Your task to perform on an android device: Open Yahoo.com Image 0: 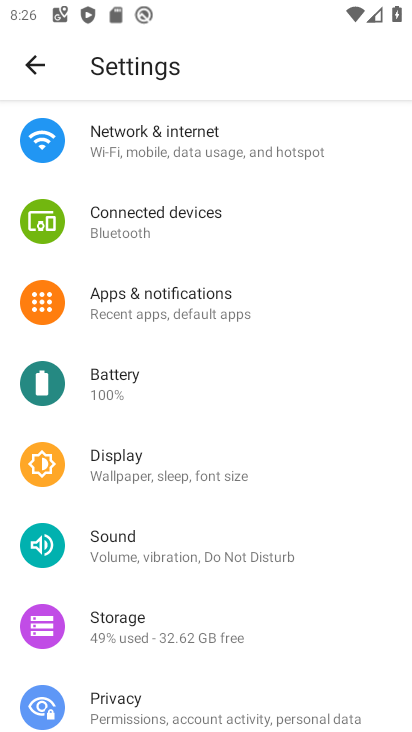
Step 0: press back button
Your task to perform on an android device: Open Yahoo.com Image 1: 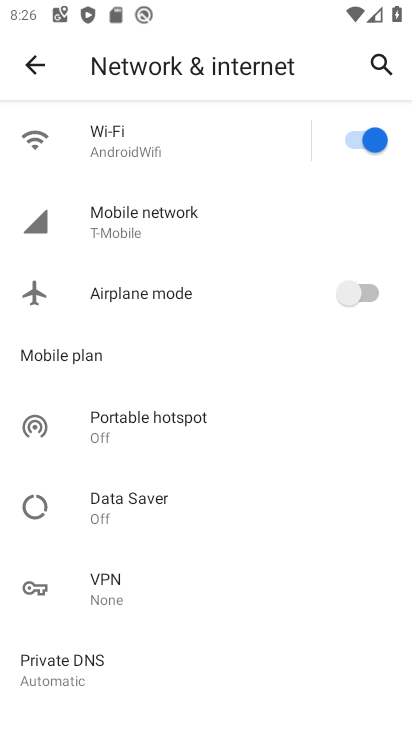
Step 1: press back button
Your task to perform on an android device: Open Yahoo.com Image 2: 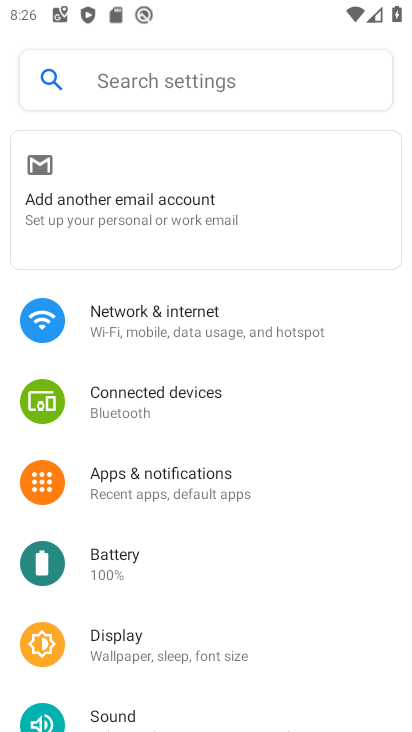
Step 2: press home button
Your task to perform on an android device: Open Yahoo.com Image 3: 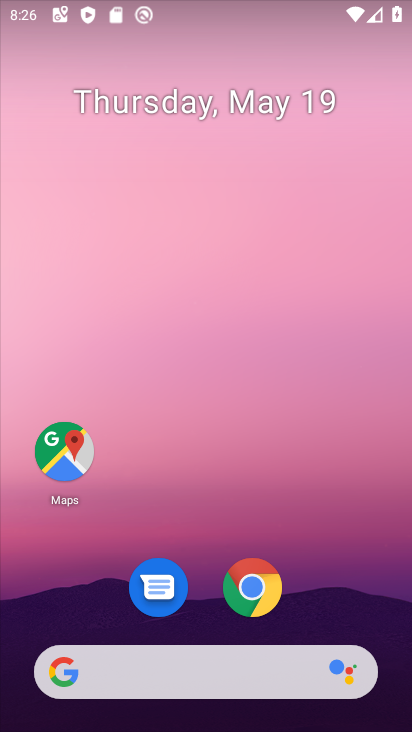
Step 3: drag from (332, 597) to (257, 35)
Your task to perform on an android device: Open Yahoo.com Image 4: 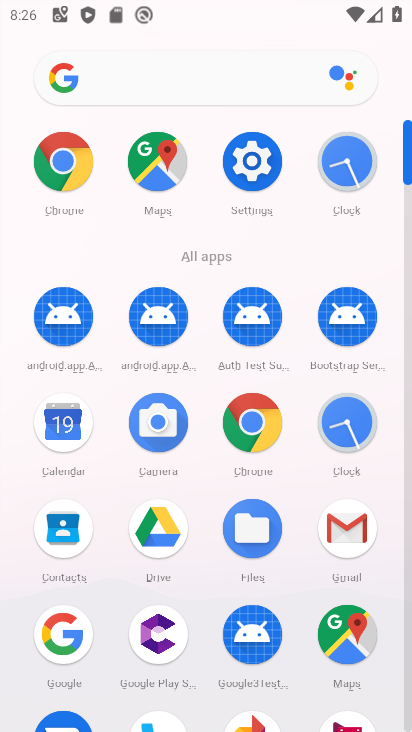
Step 4: click (57, 161)
Your task to perform on an android device: Open Yahoo.com Image 5: 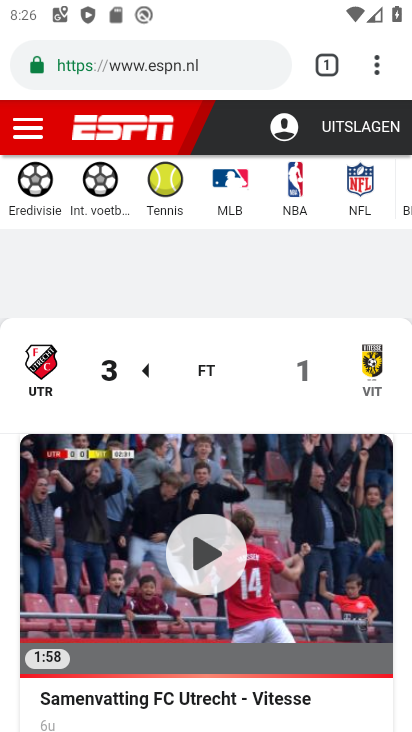
Step 5: click (186, 55)
Your task to perform on an android device: Open Yahoo.com Image 6: 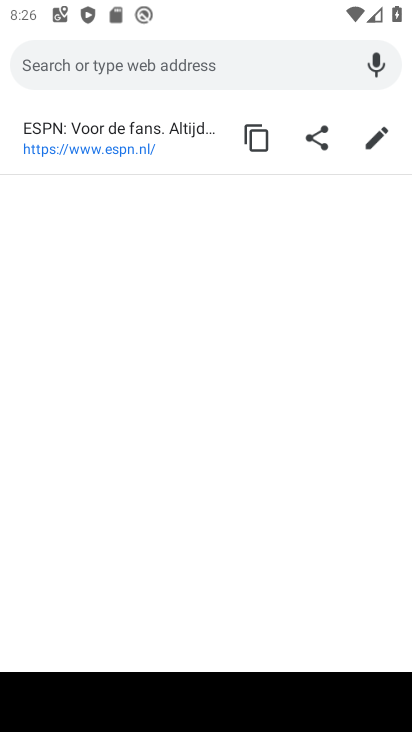
Step 6: type "Yahoo.com"
Your task to perform on an android device: Open Yahoo.com Image 7: 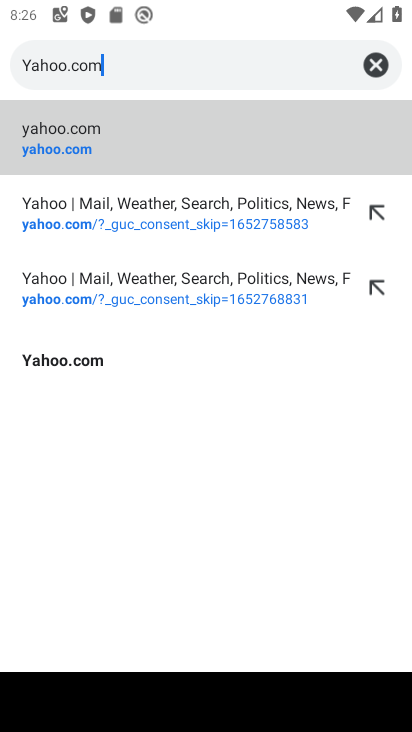
Step 7: type ""
Your task to perform on an android device: Open Yahoo.com Image 8: 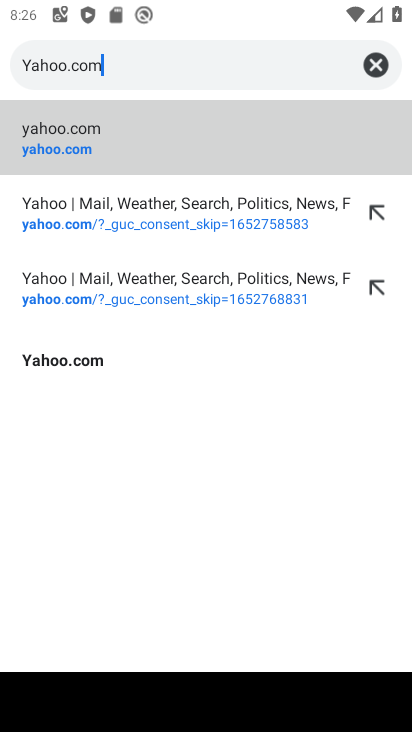
Step 8: click (157, 159)
Your task to perform on an android device: Open Yahoo.com Image 9: 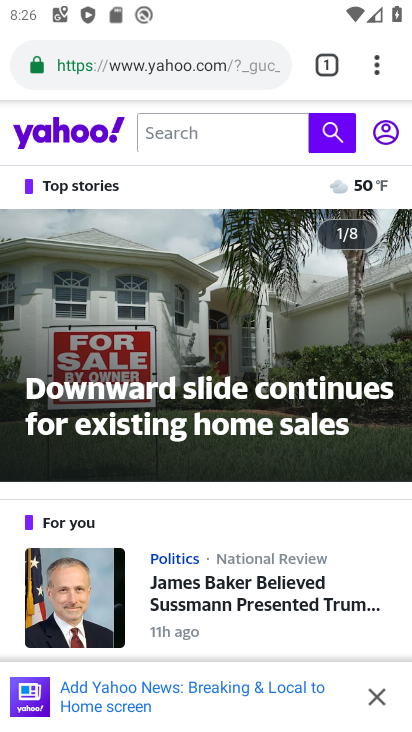
Step 9: task complete